Your task to perform on an android device: Is it going to rain this weekend? Image 0: 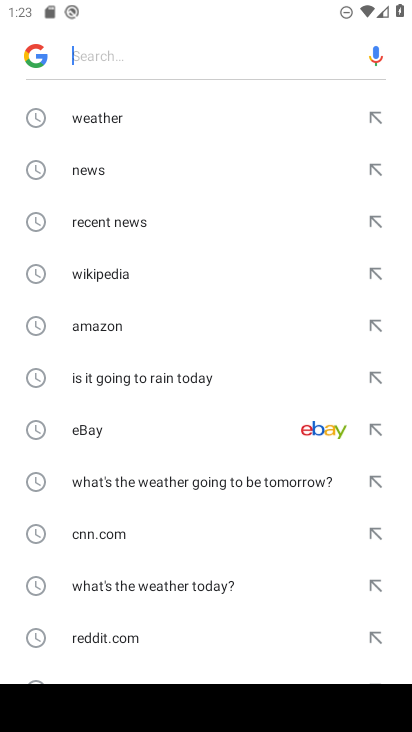
Step 0: click (252, 485)
Your task to perform on an android device: Is it going to rain this weekend? Image 1: 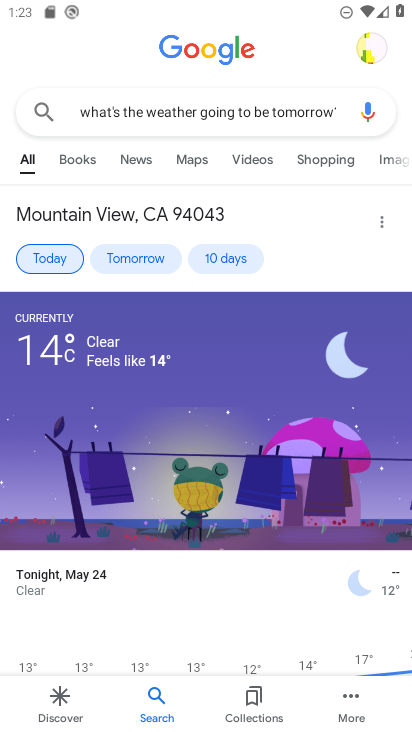
Step 1: click (135, 270)
Your task to perform on an android device: Is it going to rain this weekend? Image 2: 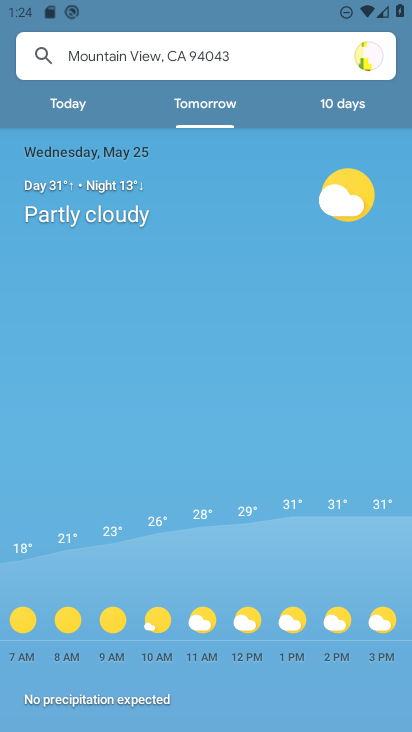
Step 2: task complete